Your task to perform on an android device: Open calendar and show me the second week of next month Image 0: 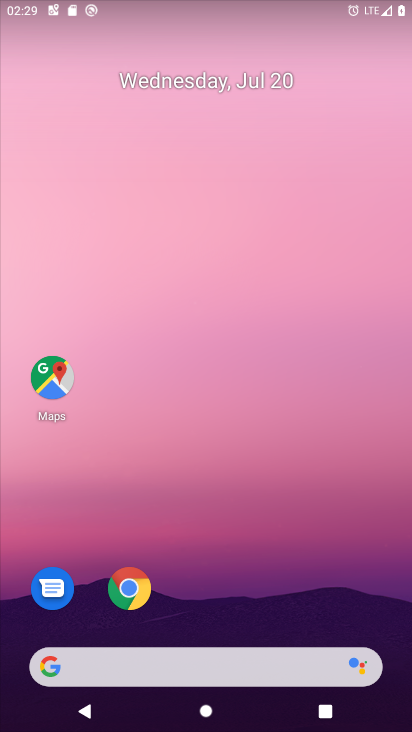
Step 0: drag from (231, 632) to (277, 231)
Your task to perform on an android device: Open calendar and show me the second week of next month Image 1: 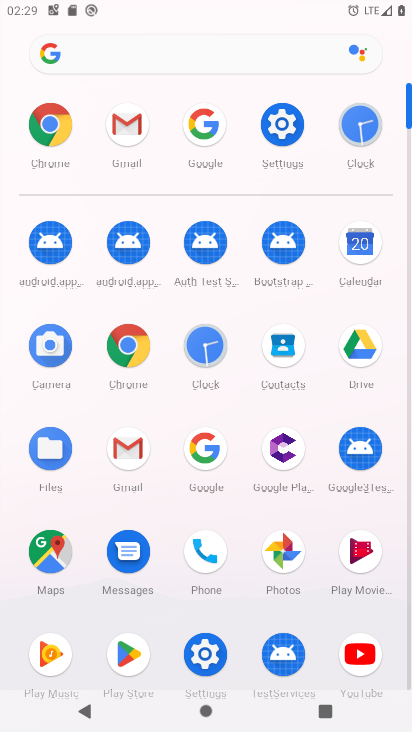
Step 1: click (368, 236)
Your task to perform on an android device: Open calendar and show me the second week of next month Image 2: 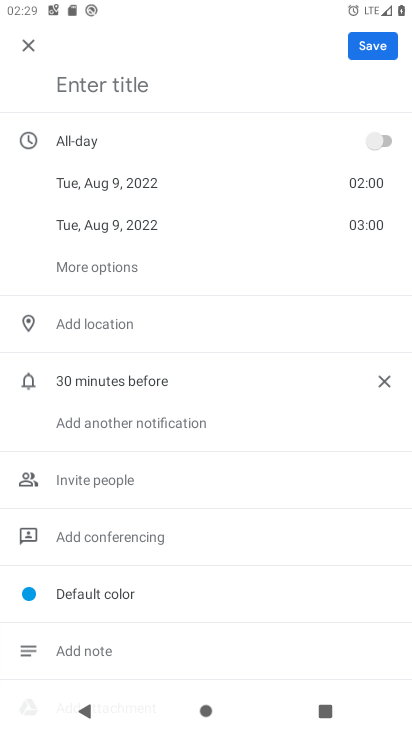
Step 2: click (35, 42)
Your task to perform on an android device: Open calendar and show me the second week of next month Image 3: 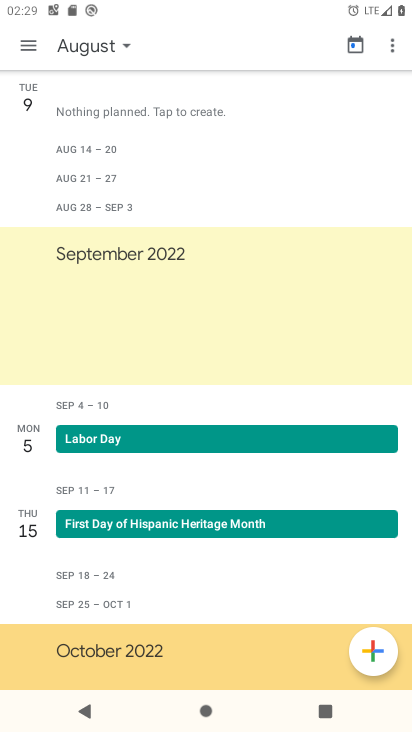
Step 3: task complete